Your task to perform on an android device: Turn on the flashlight Image 0: 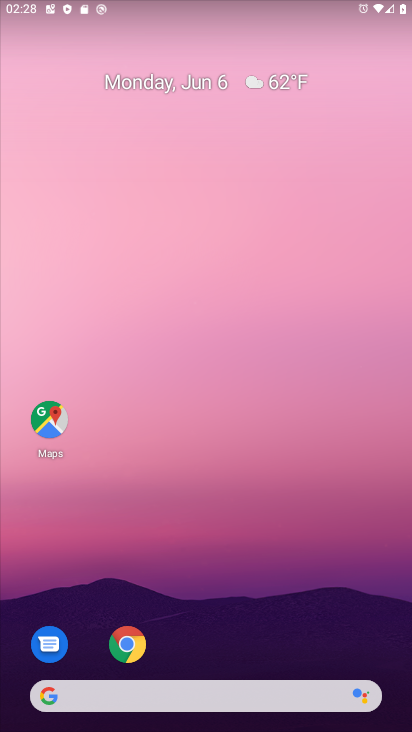
Step 0: drag from (230, 10) to (252, 578)
Your task to perform on an android device: Turn on the flashlight Image 1: 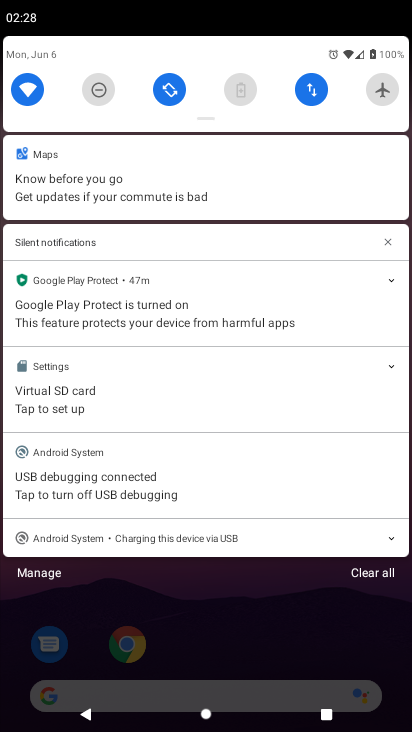
Step 1: drag from (200, 116) to (248, 472)
Your task to perform on an android device: Turn on the flashlight Image 2: 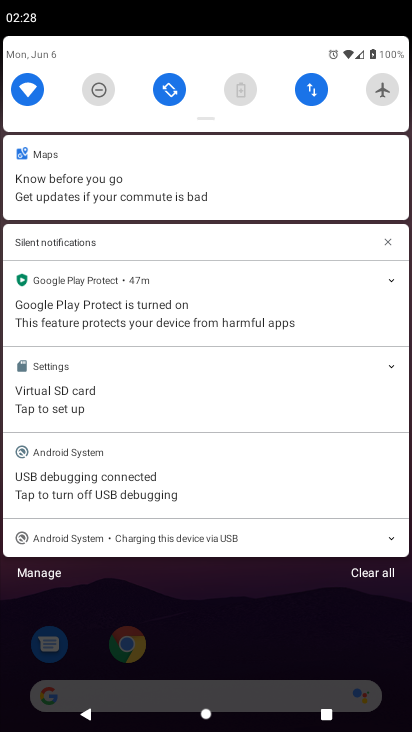
Step 2: drag from (195, 119) to (200, 567)
Your task to perform on an android device: Turn on the flashlight Image 3: 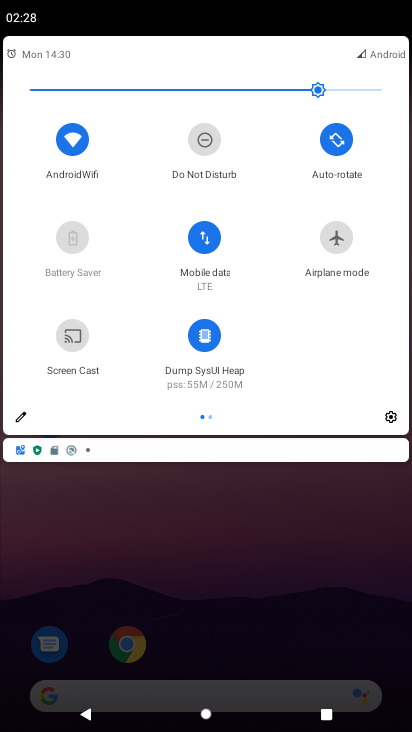
Step 3: click (21, 417)
Your task to perform on an android device: Turn on the flashlight Image 4: 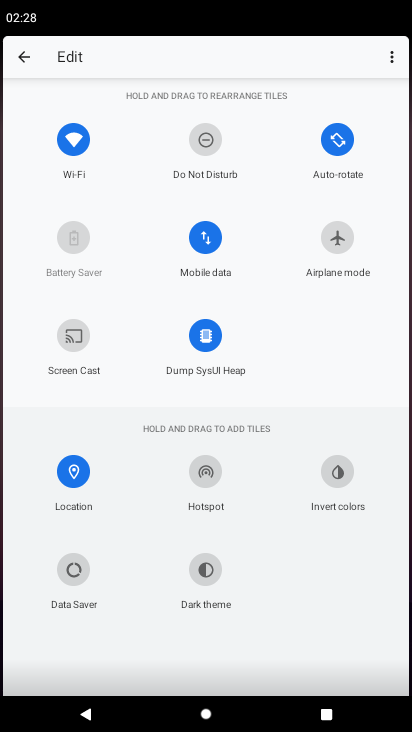
Step 4: task complete